Your task to perform on an android device: find photos in the google photos app Image 0: 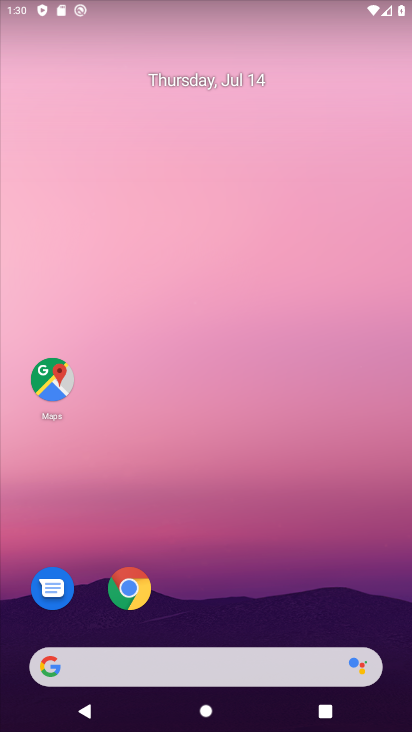
Step 0: drag from (183, 651) to (220, 171)
Your task to perform on an android device: find photos in the google photos app Image 1: 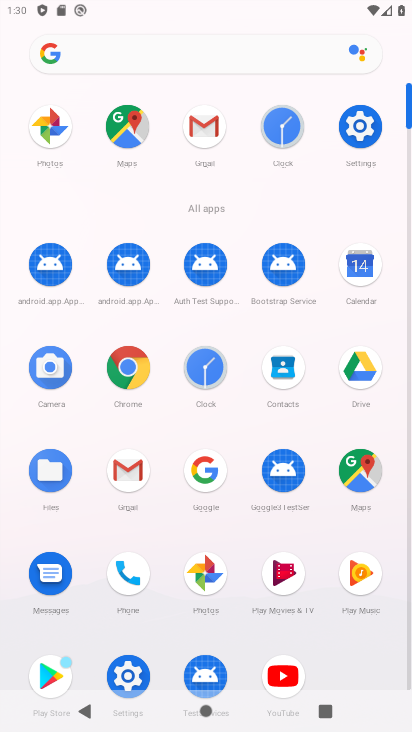
Step 1: click (215, 562)
Your task to perform on an android device: find photos in the google photos app Image 2: 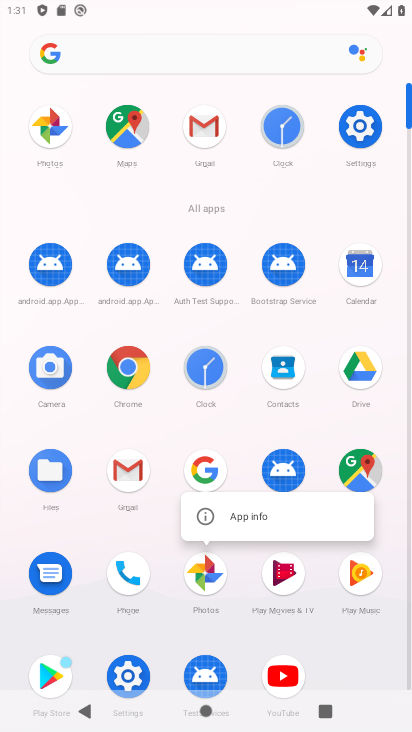
Step 2: click (214, 562)
Your task to perform on an android device: find photos in the google photos app Image 3: 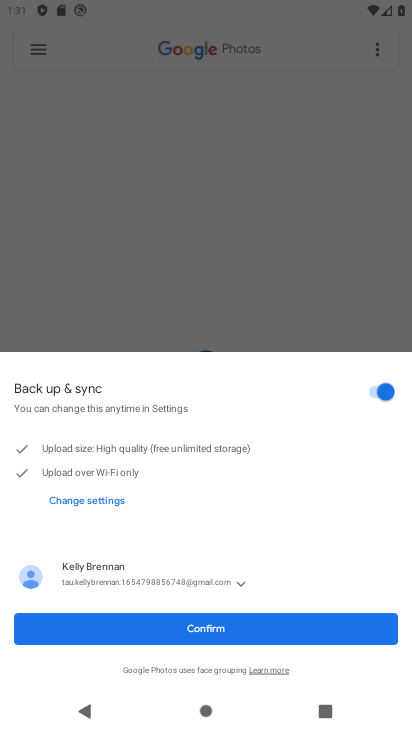
Step 3: click (240, 627)
Your task to perform on an android device: find photos in the google photos app Image 4: 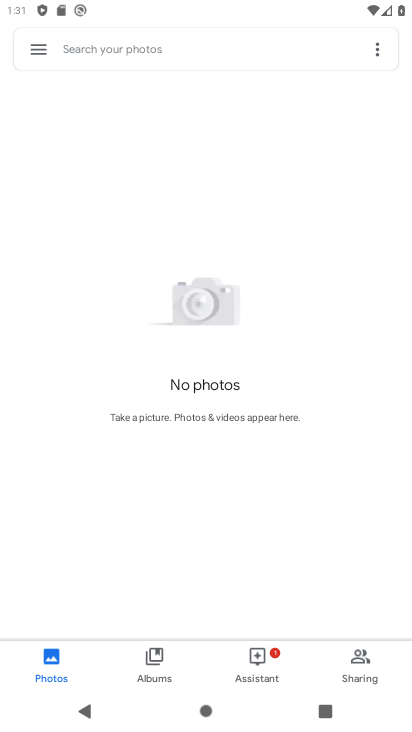
Step 4: task complete